Your task to perform on an android device: open app "WhatsApp Messenger" Image 0: 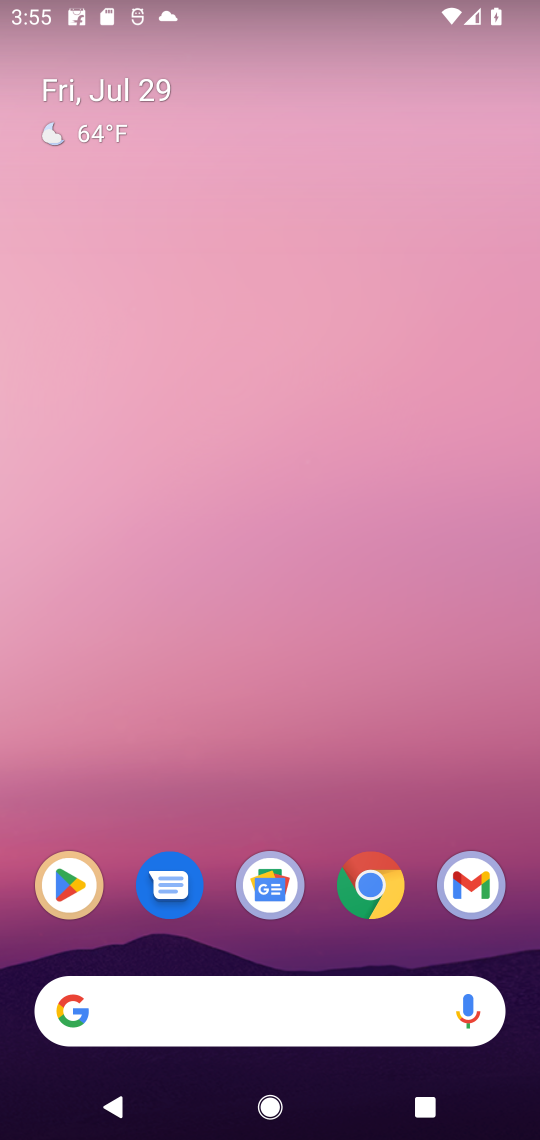
Step 0: click (69, 867)
Your task to perform on an android device: open app "WhatsApp Messenger" Image 1: 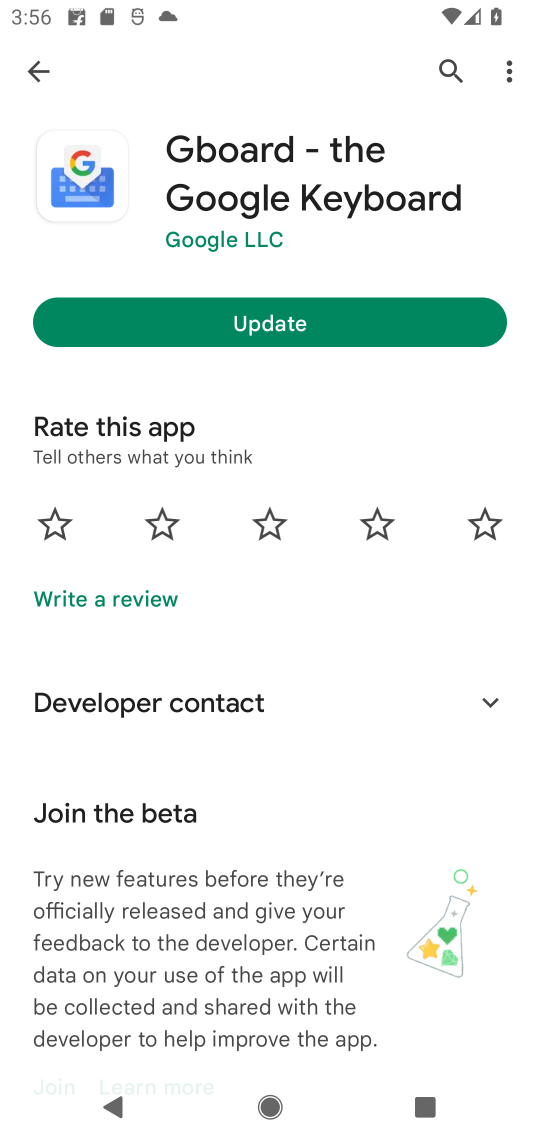
Step 1: click (454, 61)
Your task to perform on an android device: open app "WhatsApp Messenger" Image 2: 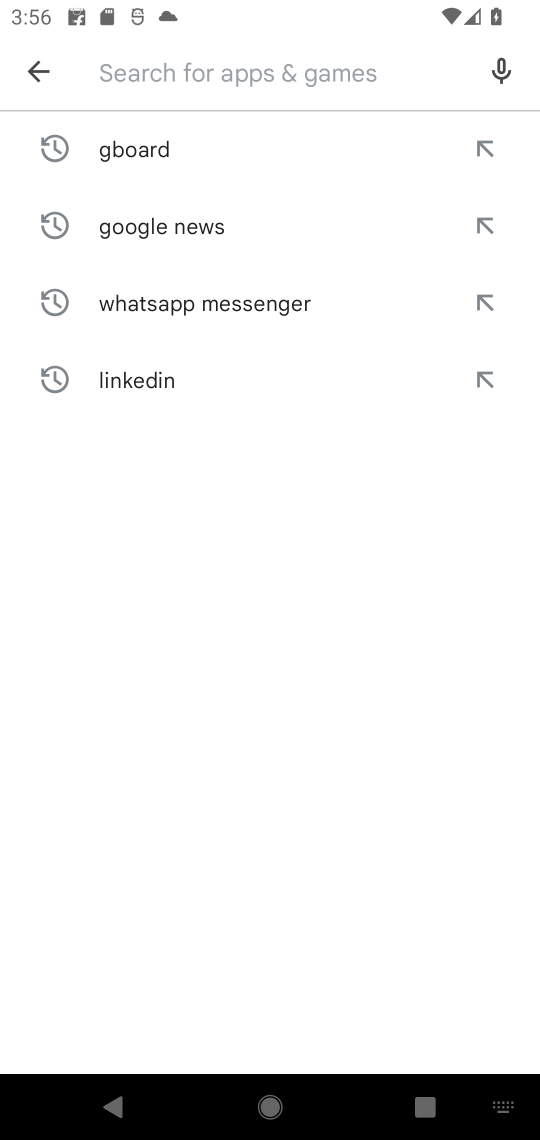
Step 2: type "WhatsApp Messenger"
Your task to perform on an android device: open app "WhatsApp Messenger" Image 3: 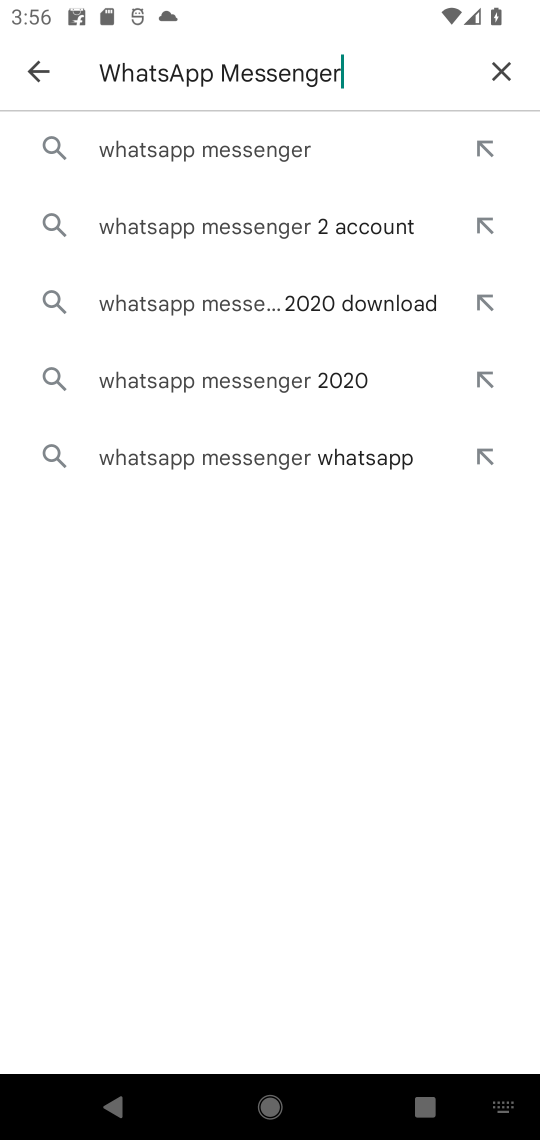
Step 3: click (258, 152)
Your task to perform on an android device: open app "WhatsApp Messenger" Image 4: 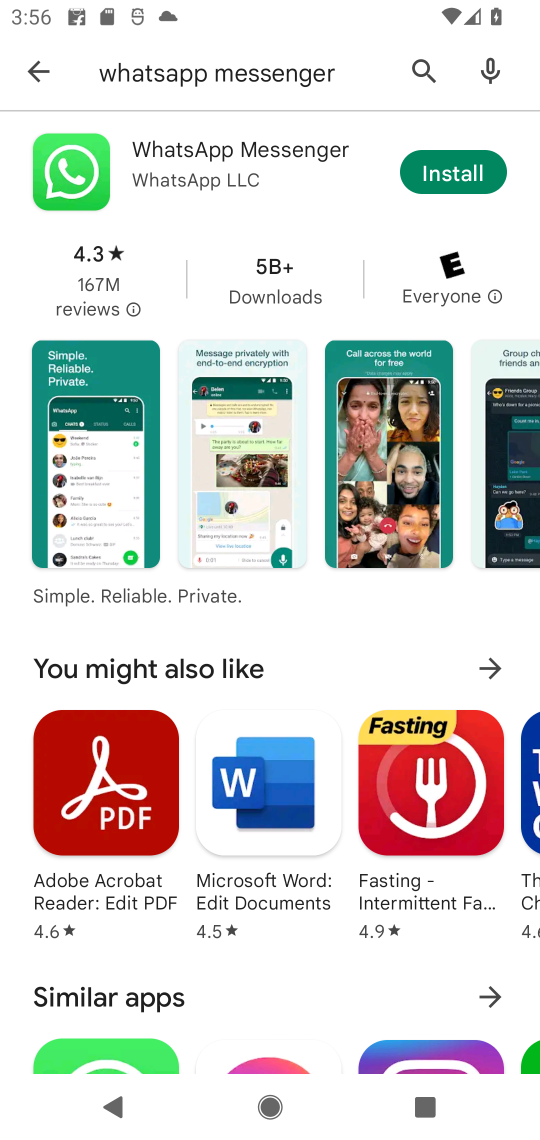
Step 4: click (443, 171)
Your task to perform on an android device: open app "WhatsApp Messenger" Image 5: 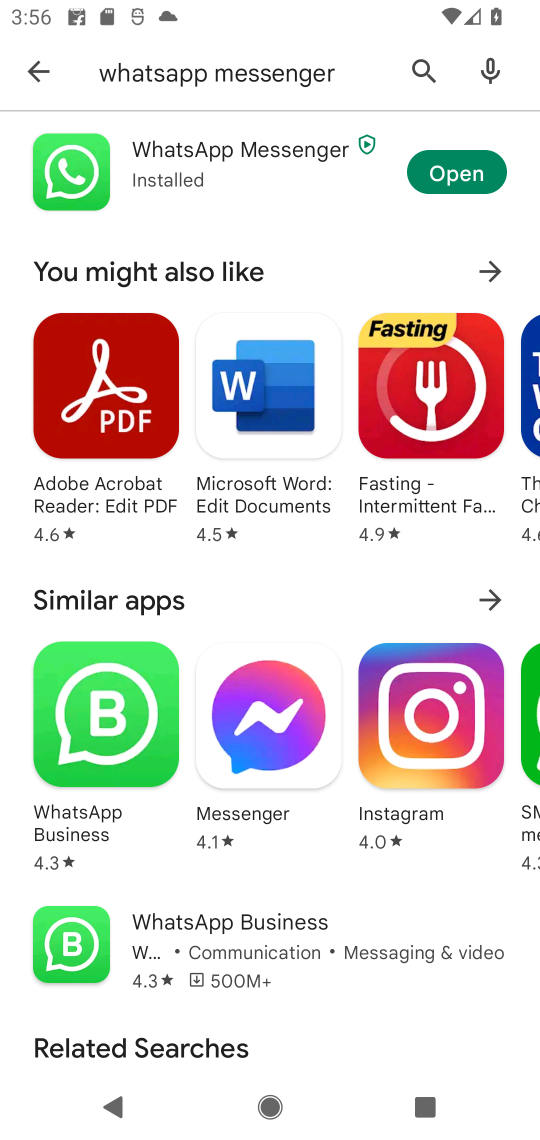
Step 5: click (453, 178)
Your task to perform on an android device: open app "WhatsApp Messenger" Image 6: 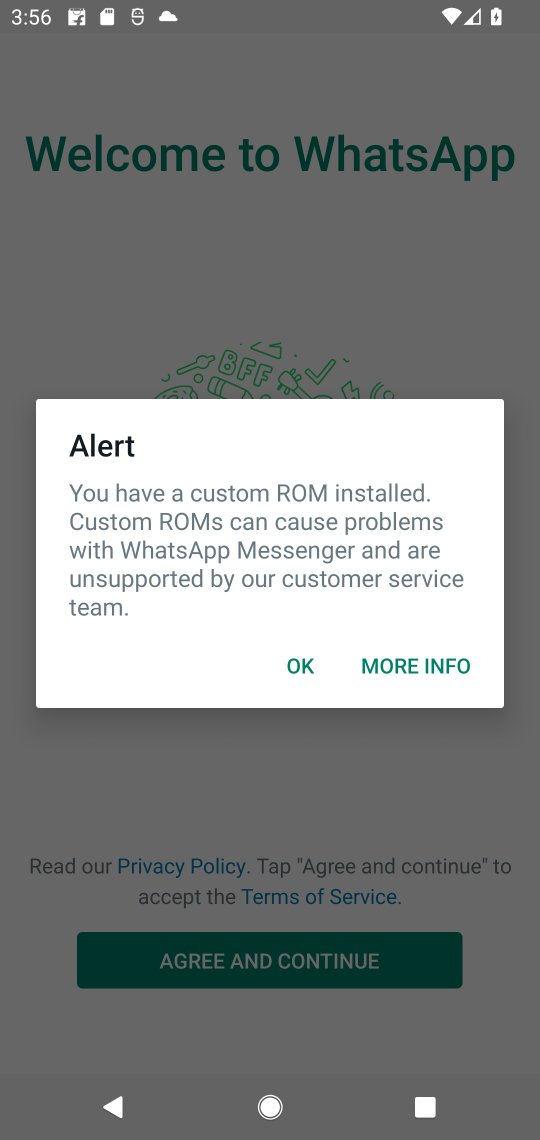
Step 6: task complete